Your task to perform on an android device: turn vacation reply on in the gmail app Image 0: 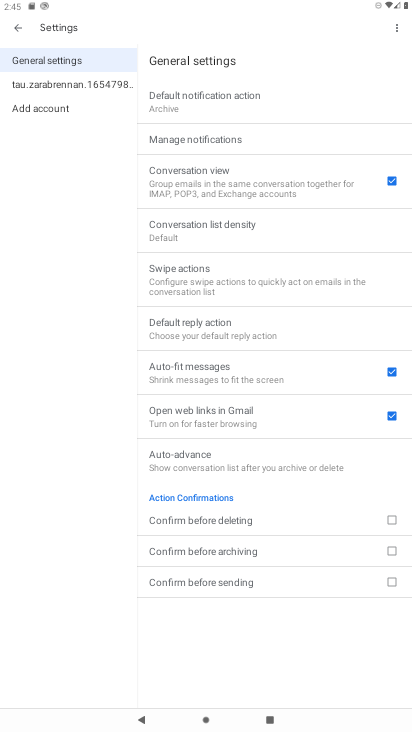
Step 0: press home button
Your task to perform on an android device: turn vacation reply on in the gmail app Image 1: 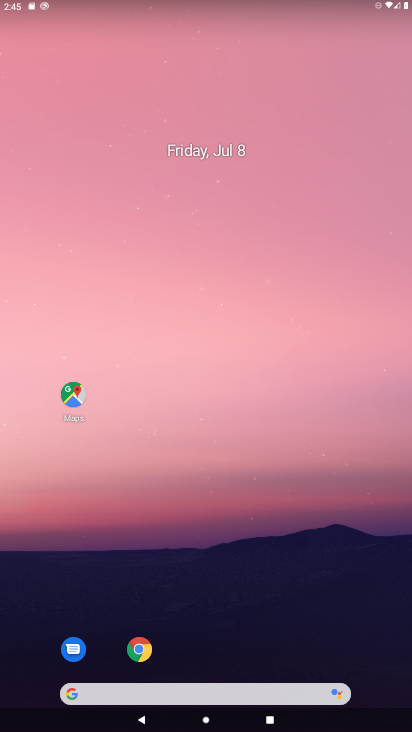
Step 1: drag from (390, 668) to (353, 62)
Your task to perform on an android device: turn vacation reply on in the gmail app Image 2: 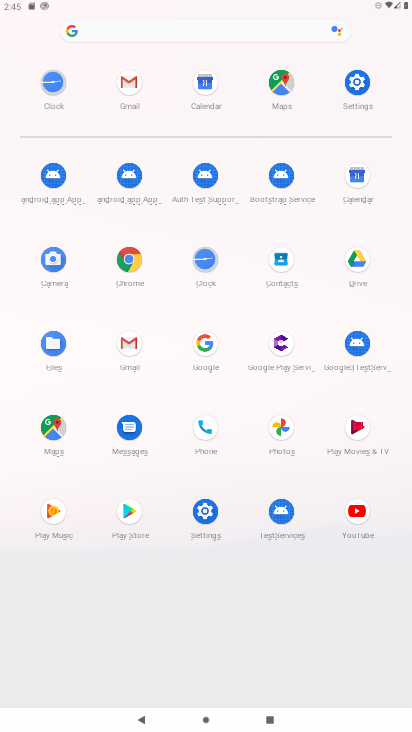
Step 2: click (128, 344)
Your task to perform on an android device: turn vacation reply on in the gmail app Image 3: 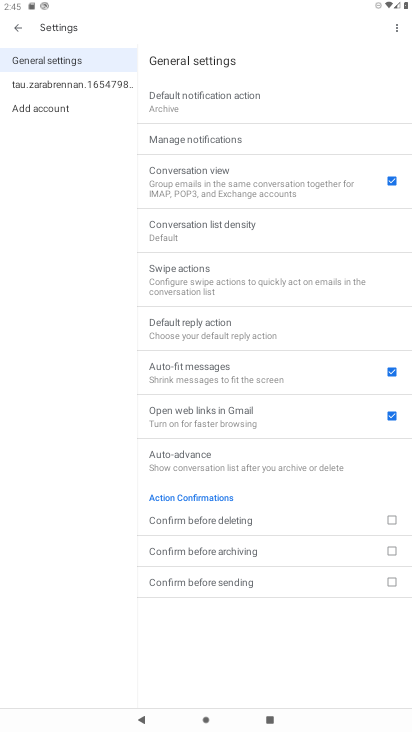
Step 3: click (36, 81)
Your task to perform on an android device: turn vacation reply on in the gmail app Image 4: 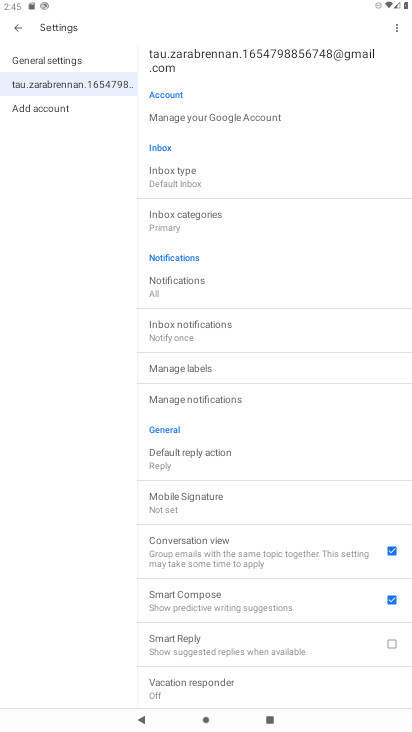
Step 4: drag from (304, 631) to (302, 298)
Your task to perform on an android device: turn vacation reply on in the gmail app Image 5: 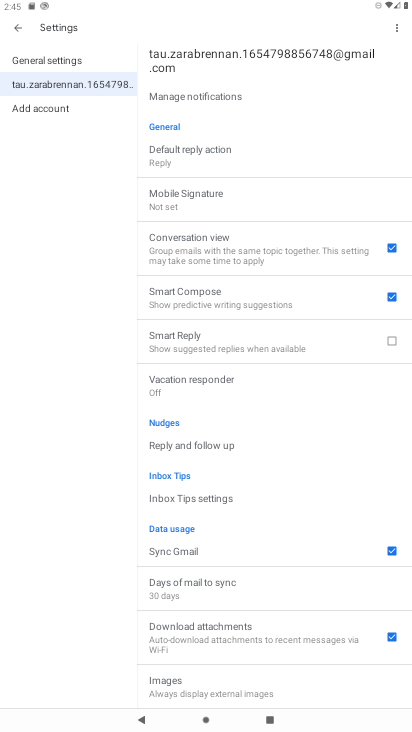
Step 5: click (202, 388)
Your task to perform on an android device: turn vacation reply on in the gmail app Image 6: 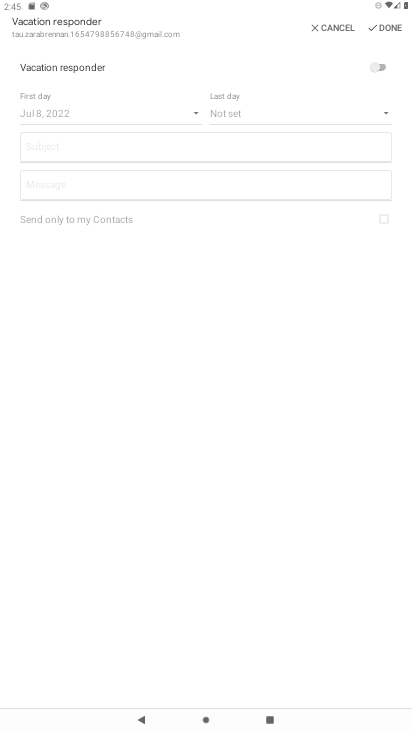
Step 6: click (383, 66)
Your task to perform on an android device: turn vacation reply on in the gmail app Image 7: 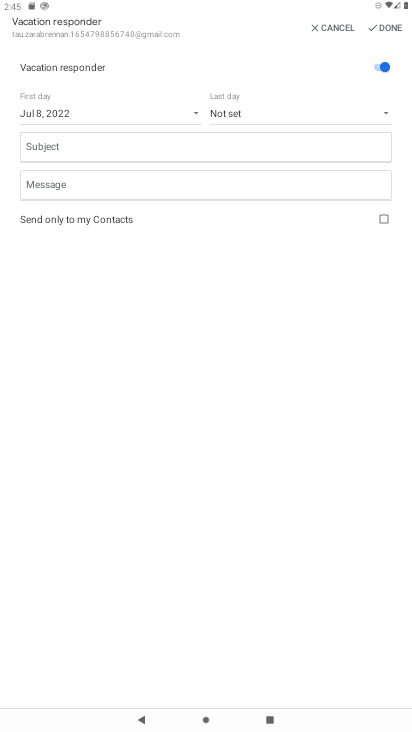
Step 7: click (388, 21)
Your task to perform on an android device: turn vacation reply on in the gmail app Image 8: 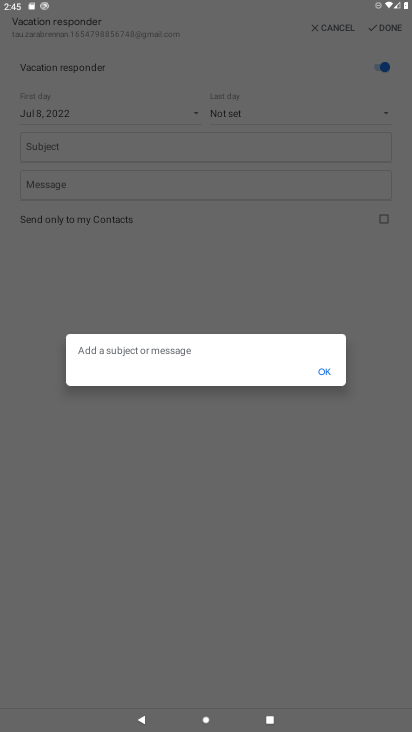
Step 8: click (322, 370)
Your task to perform on an android device: turn vacation reply on in the gmail app Image 9: 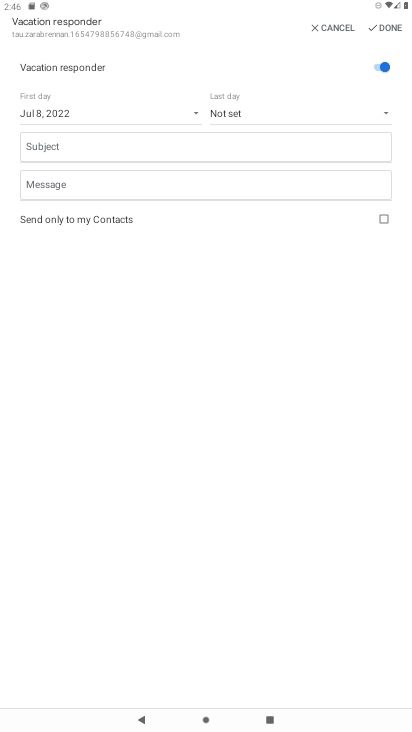
Step 9: task complete